Your task to perform on an android device: Go to Amazon Image 0: 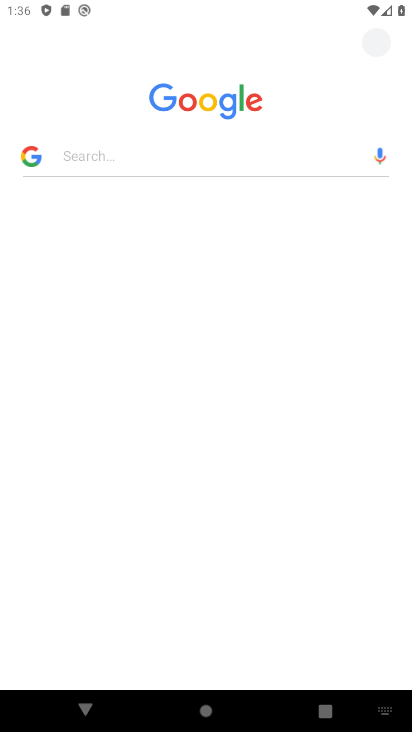
Step 0: drag from (237, 720) to (244, 4)
Your task to perform on an android device: Go to Amazon Image 1: 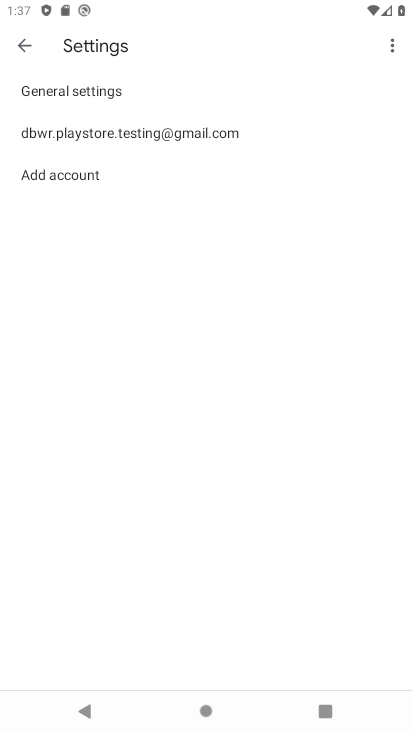
Step 1: press home button
Your task to perform on an android device: Go to Amazon Image 2: 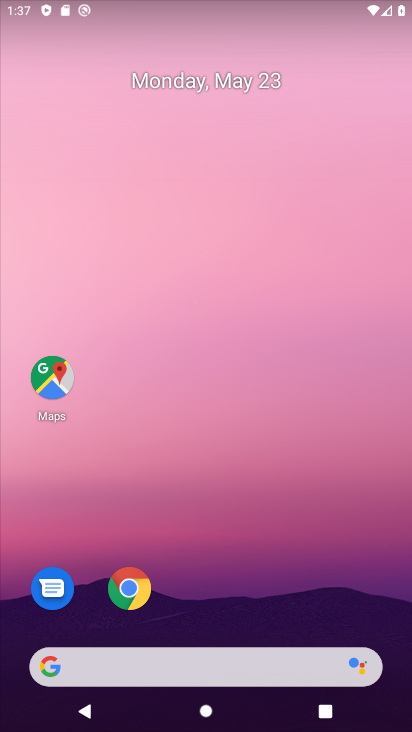
Step 2: click (125, 592)
Your task to perform on an android device: Go to Amazon Image 3: 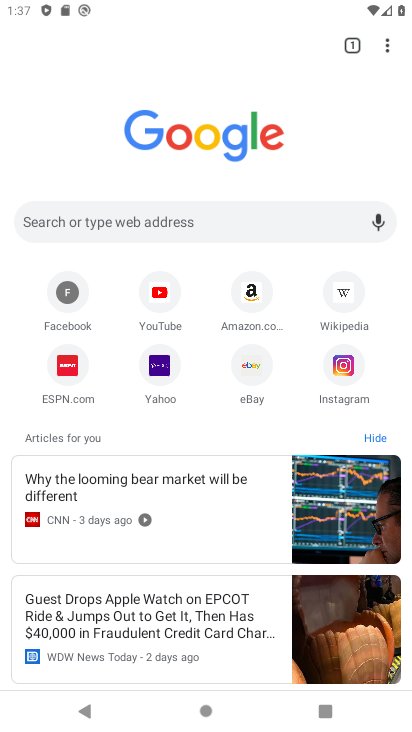
Step 3: click (255, 295)
Your task to perform on an android device: Go to Amazon Image 4: 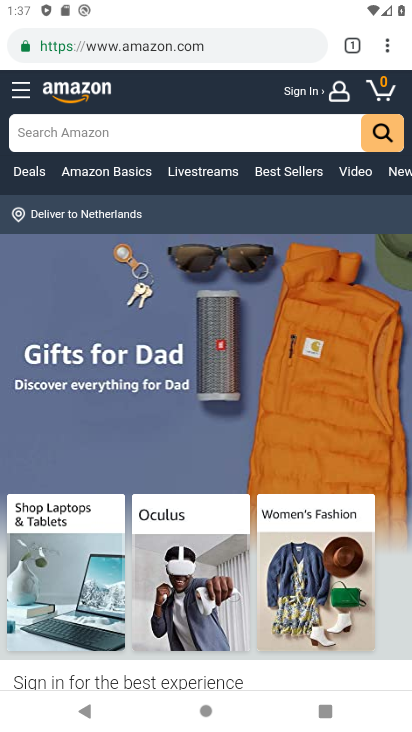
Step 4: task complete